Your task to perform on an android device: empty trash in the gmail app Image 0: 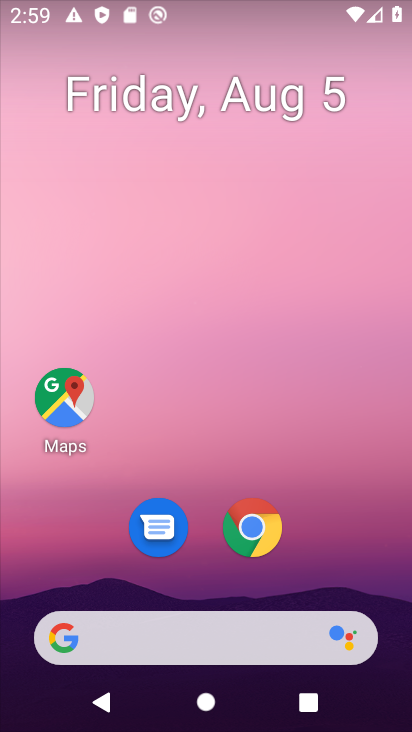
Step 0: drag from (206, 449) to (206, 66)
Your task to perform on an android device: empty trash in the gmail app Image 1: 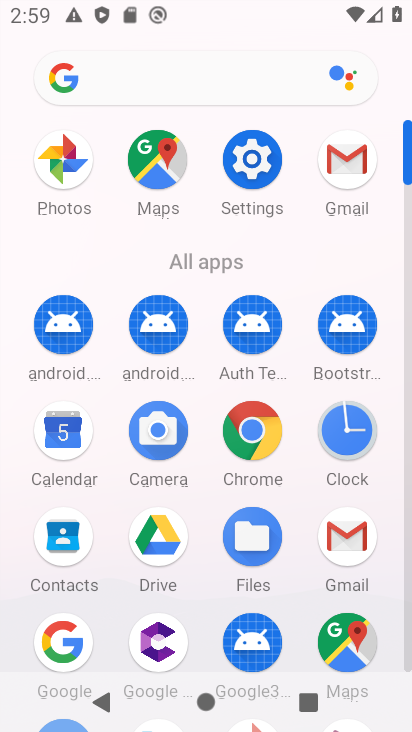
Step 1: click (349, 542)
Your task to perform on an android device: empty trash in the gmail app Image 2: 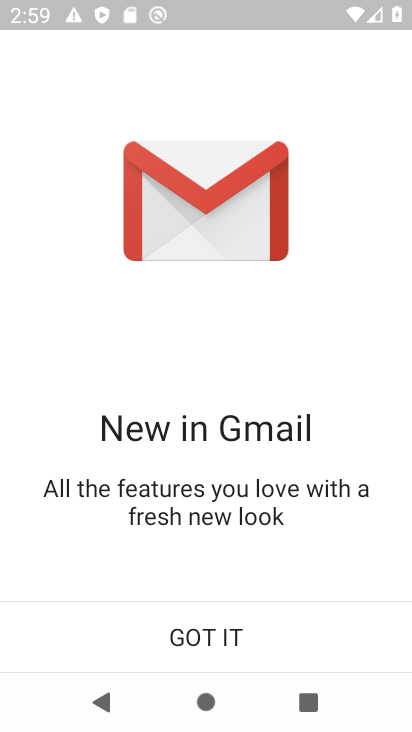
Step 2: click (232, 645)
Your task to perform on an android device: empty trash in the gmail app Image 3: 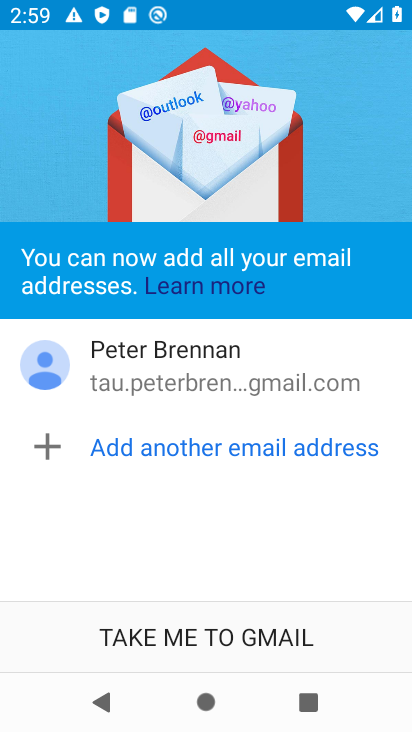
Step 3: click (193, 633)
Your task to perform on an android device: empty trash in the gmail app Image 4: 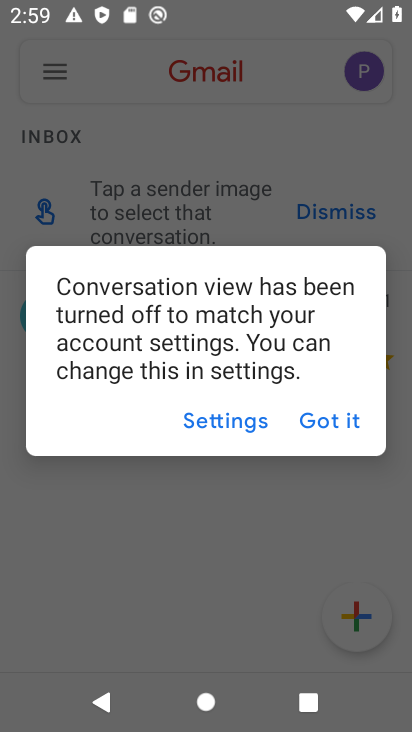
Step 4: click (315, 418)
Your task to perform on an android device: empty trash in the gmail app Image 5: 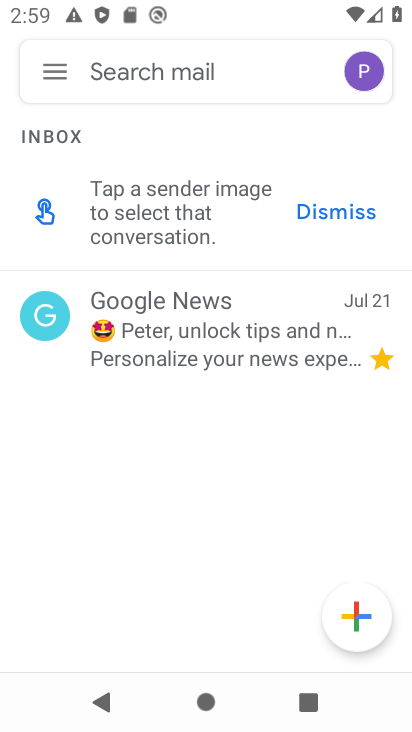
Step 5: click (55, 68)
Your task to perform on an android device: empty trash in the gmail app Image 6: 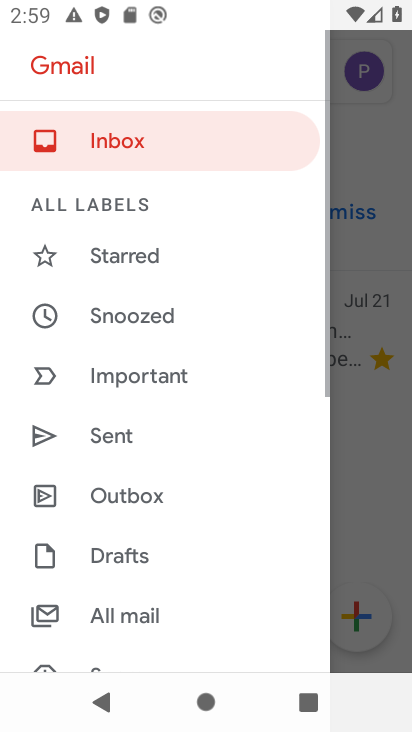
Step 6: drag from (107, 554) to (114, 316)
Your task to perform on an android device: empty trash in the gmail app Image 7: 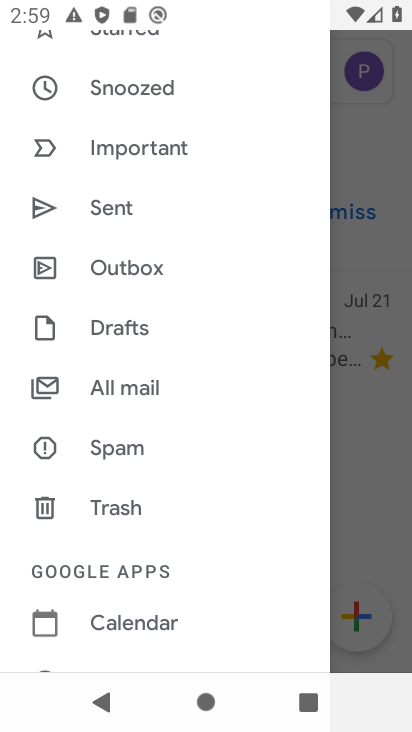
Step 7: click (122, 506)
Your task to perform on an android device: empty trash in the gmail app Image 8: 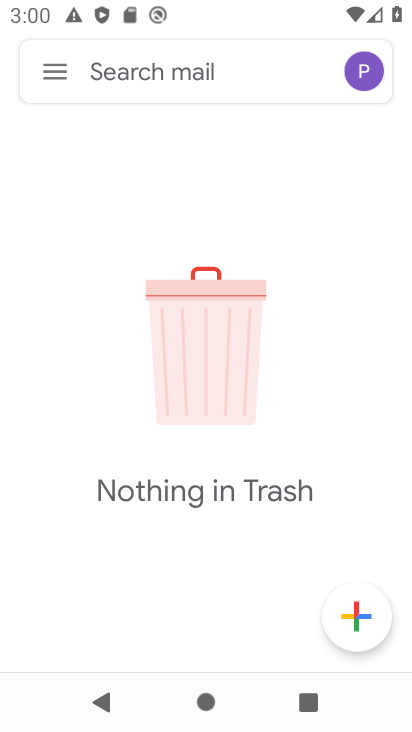
Step 8: task complete